Your task to perform on an android device: Go to internet settings Image 0: 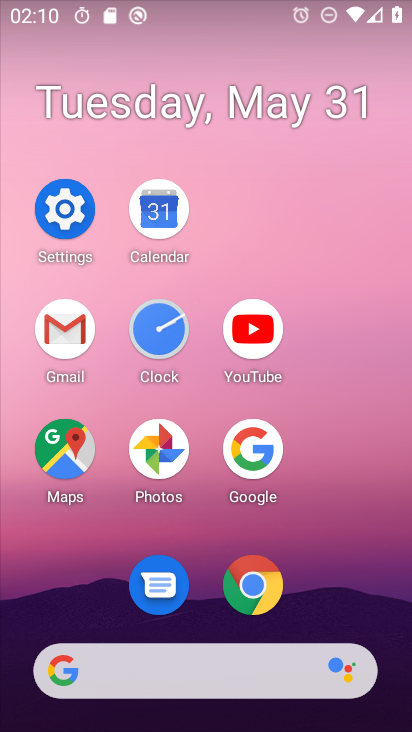
Step 0: click (91, 209)
Your task to perform on an android device: Go to internet settings Image 1: 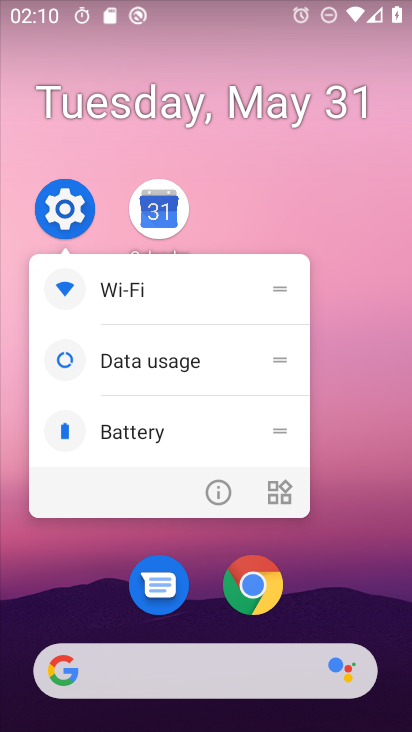
Step 1: click (64, 186)
Your task to perform on an android device: Go to internet settings Image 2: 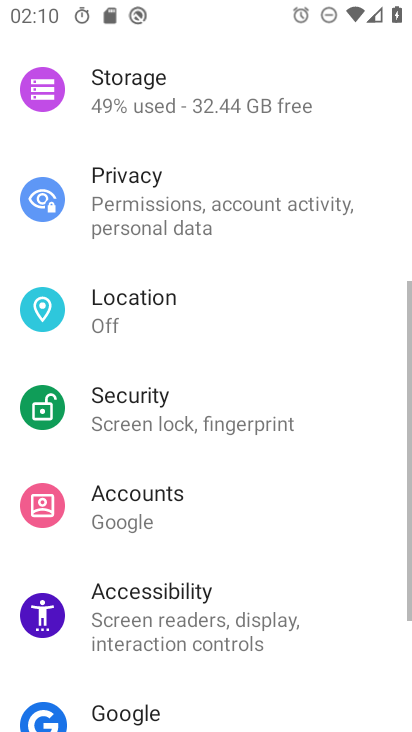
Step 2: drag from (264, 178) to (301, 607)
Your task to perform on an android device: Go to internet settings Image 3: 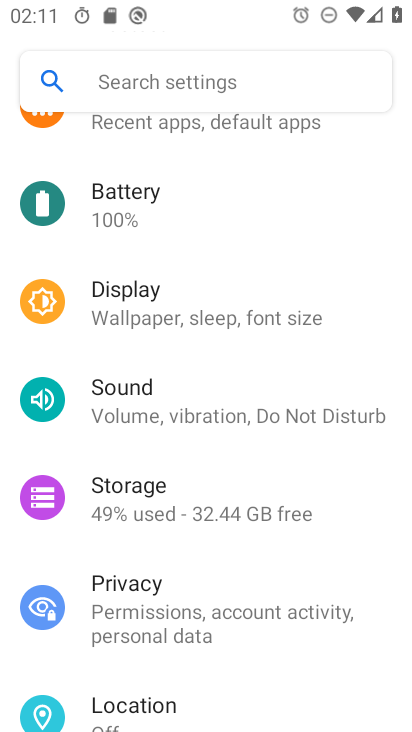
Step 3: drag from (239, 208) to (228, 617)
Your task to perform on an android device: Go to internet settings Image 4: 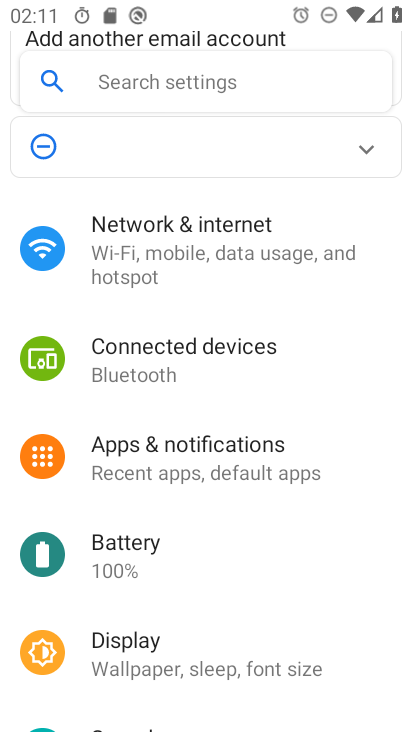
Step 4: click (229, 261)
Your task to perform on an android device: Go to internet settings Image 5: 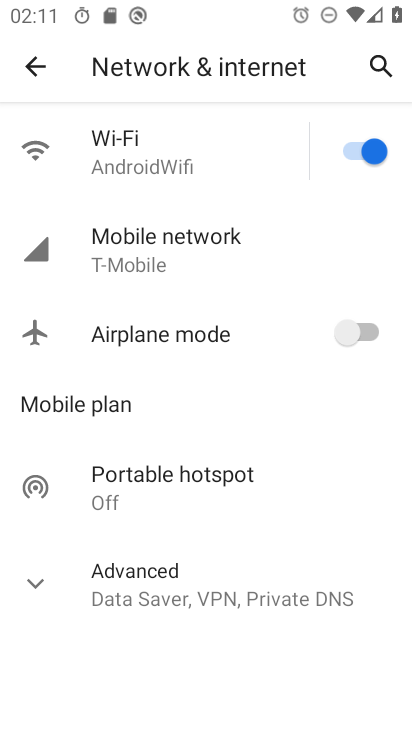
Step 5: task complete